Your task to perform on an android device: Open Amazon Image 0: 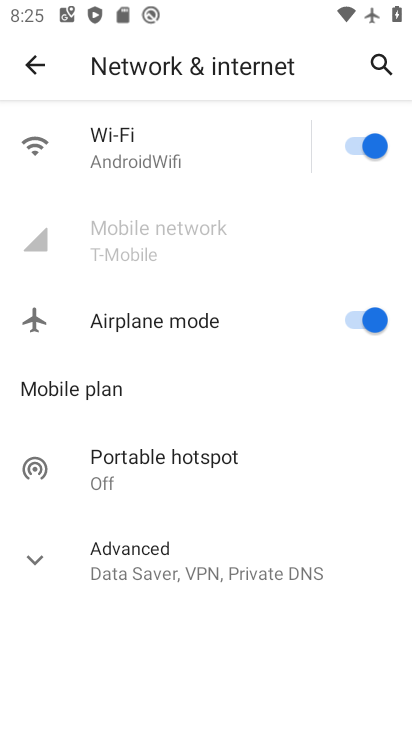
Step 0: press home button
Your task to perform on an android device: Open Amazon Image 1: 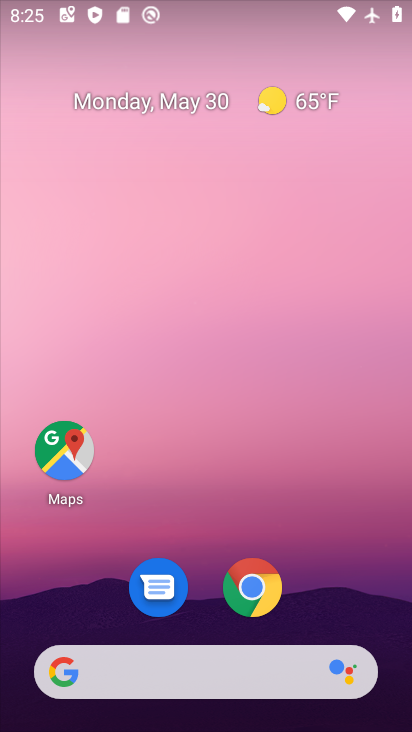
Step 1: click (259, 607)
Your task to perform on an android device: Open Amazon Image 2: 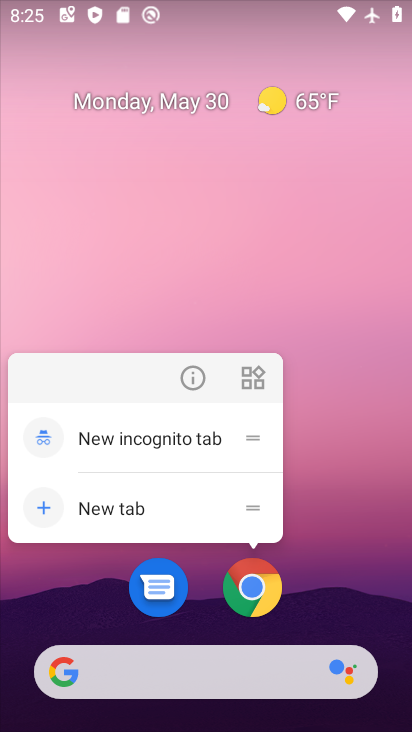
Step 2: click (261, 587)
Your task to perform on an android device: Open Amazon Image 3: 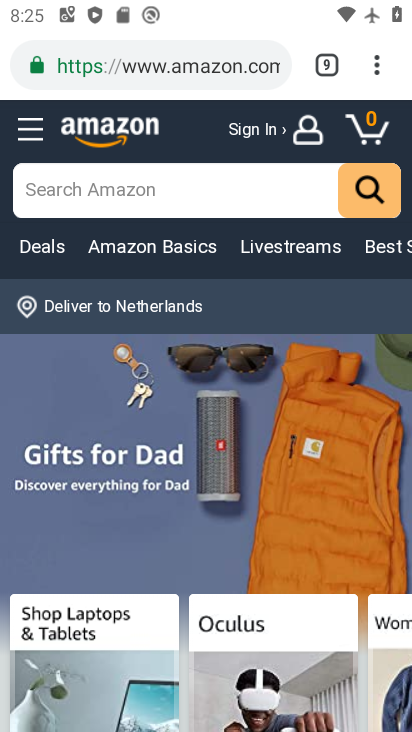
Step 3: task complete